Your task to perform on an android device: Empty the shopping cart on ebay.com. Search for "usb-c to usb-a" on ebay.com, select the first entry, add it to the cart, then select checkout. Image 0: 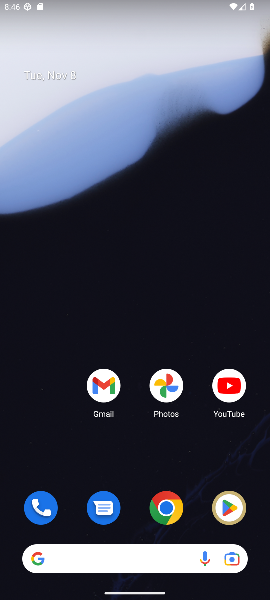
Step 0: press home button
Your task to perform on an android device: Empty the shopping cart on ebay.com. Search for "usb-c to usb-a" on ebay.com, select the first entry, add it to the cart, then select checkout. Image 1: 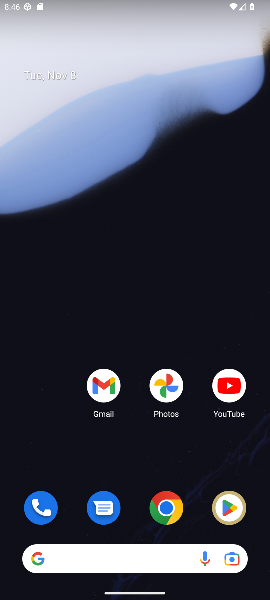
Step 1: click (170, 514)
Your task to perform on an android device: Empty the shopping cart on ebay.com. Search for "usb-c to usb-a" on ebay.com, select the first entry, add it to the cart, then select checkout. Image 2: 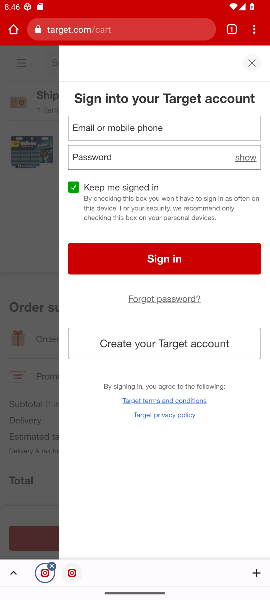
Step 2: click (253, 63)
Your task to perform on an android device: Empty the shopping cart on ebay.com. Search for "usb-c to usb-a" on ebay.com, select the first entry, add it to the cart, then select checkout. Image 3: 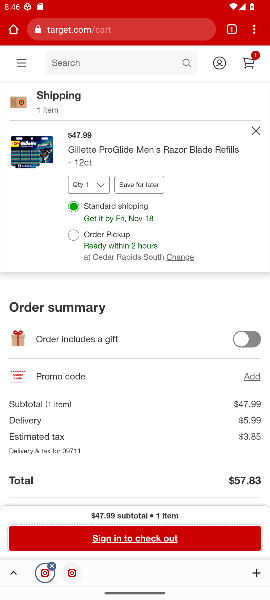
Step 3: click (72, 64)
Your task to perform on an android device: Empty the shopping cart on ebay.com. Search for "usb-c to usb-a" on ebay.com, select the first entry, add it to the cart, then select checkout. Image 4: 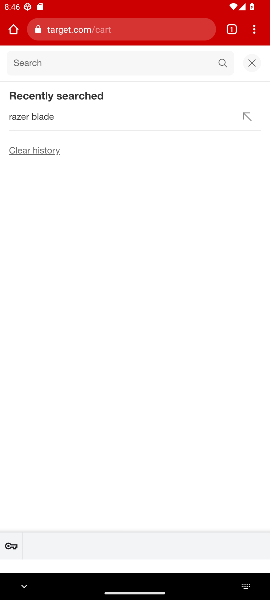
Step 4: click (47, 28)
Your task to perform on an android device: Empty the shopping cart on ebay.com. Search for "usb-c to usb-a" on ebay.com, select the first entry, add it to the cart, then select checkout. Image 5: 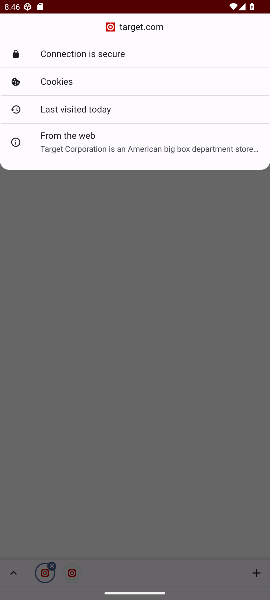
Step 5: press back button
Your task to perform on an android device: Empty the shopping cart on ebay.com. Search for "usb-c to usb-a" on ebay.com, select the first entry, add it to the cart, then select checkout. Image 6: 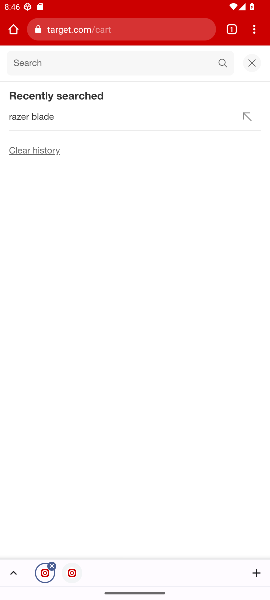
Step 6: click (65, 30)
Your task to perform on an android device: Empty the shopping cart on ebay.com. Search for "usb-c to usb-a" on ebay.com, select the first entry, add it to the cart, then select checkout. Image 7: 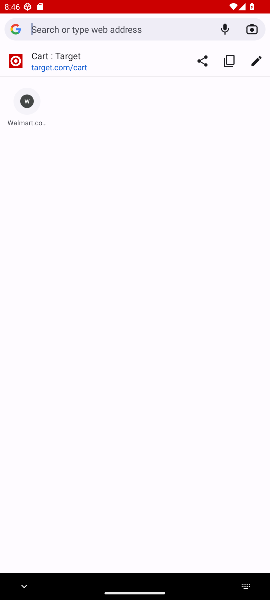
Step 7: type "ebay"
Your task to perform on an android device: Empty the shopping cart on ebay.com. Search for "usb-c to usb-a" on ebay.com, select the first entry, add it to the cart, then select checkout. Image 8: 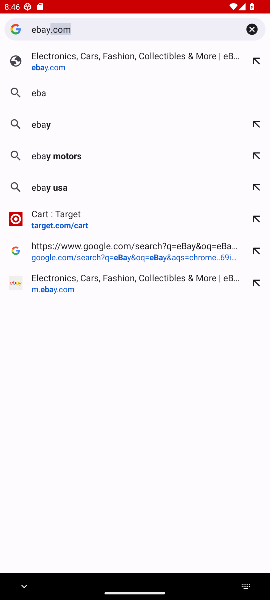
Step 8: type ""
Your task to perform on an android device: Empty the shopping cart on ebay.com. Search for "usb-c to usb-a" on ebay.com, select the first entry, add it to the cart, then select checkout. Image 9: 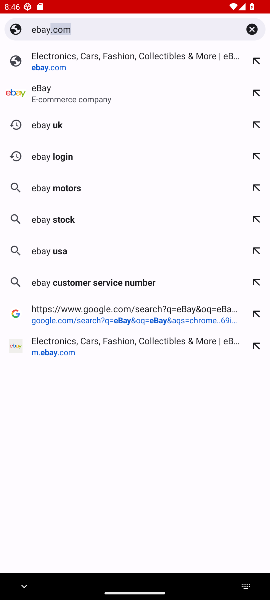
Step 9: click (44, 92)
Your task to perform on an android device: Empty the shopping cart on ebay.com. Search for "usb-c to usb-a" on ebay.com, select the first entry, add it to the cart, then select checkout. Image 10: 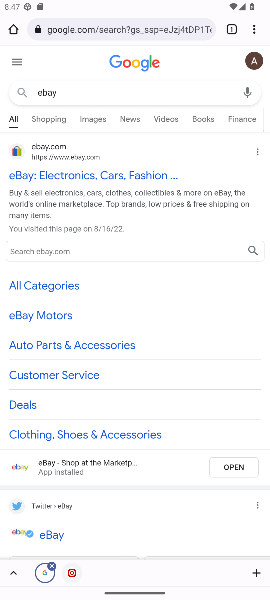
Step 10: click (64, 173)
Your task to perform on an android device: Empty the shopping cart on ebay.com. Search for "usb-c to usb-a" on ebay.com, select the first entry, add it to the cart, then select checkout. Image 11: 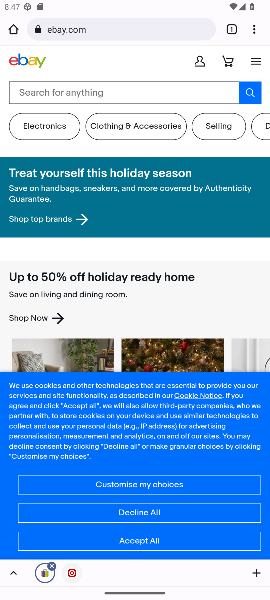
Step 11: click (89, 93)
Your task to perform on an android device: Empty the shopping cart on ebay.com. Search for "usb-c to usb-a" on ebay.com, select the first entry, add it to the cart, then select checkout. Image 12: 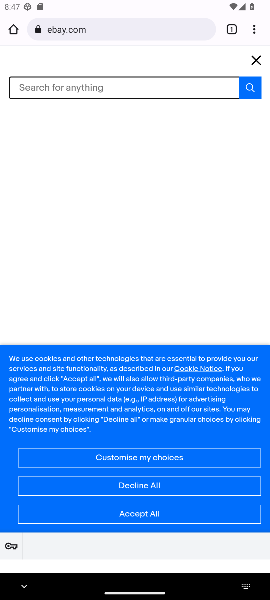
Step 12: type "usb c to usb a"
Your task to perform on an android device: Empty the shopping cart on ebay.com. Search for "usb-c to usb-a" on ebay.com, select the first entry, add it to the cart, then select checkout. Image 13: 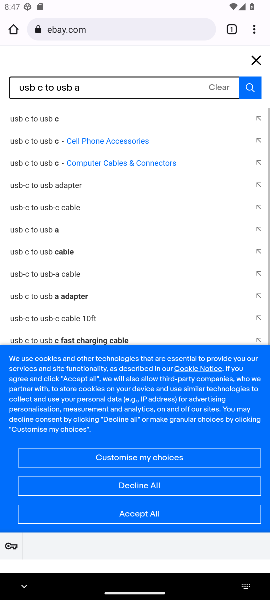
Step 13: click (33, 184)
Your task to perform on an android device: Empty the shopping cart on ebay.com. Search for "usb-c to usb-a" on ebay.com, select the first entry, add it to the cart, then select checkout. Image 14: 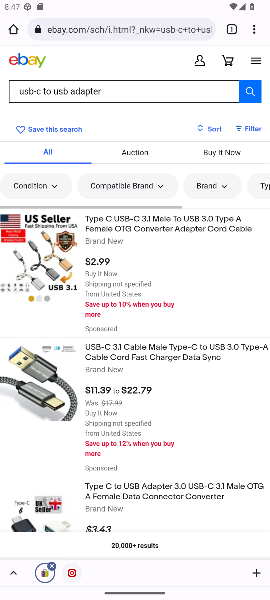
Step 14: drag from (126, 398) to (131, 290)
Your task to perform on an android device: Empty the shopping cart on ebay.com. Search for "usb-c to usb-a" on ebay.com, select the first entry, add it to the cart, then select checkout. Image 15: 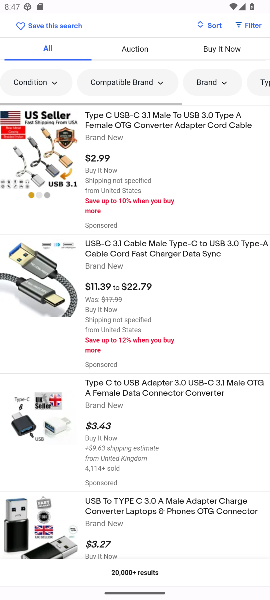
Step 15: click (140, 392)
Your task to perform on an android device: Empty the shopping cart on ebay.com. Search for "usb-c to usb-a" on ebay.com, select the first entry, add it to the cart, then select checkout. Image 16: 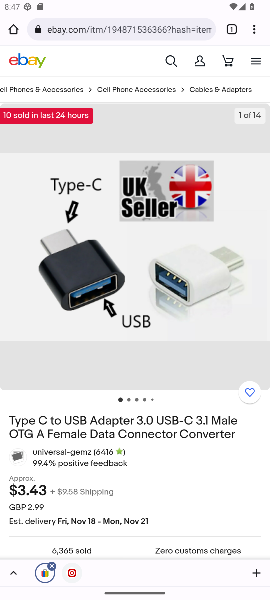
Step 16: drag from (145, 394) to (148, 164)
Your task to perform on an android device: Empty the shopping cart on ebay.com. Search for "usb-c to usb-a" on ebay.com, select the first entry, add it to the cart, then select checkout. Image 17: 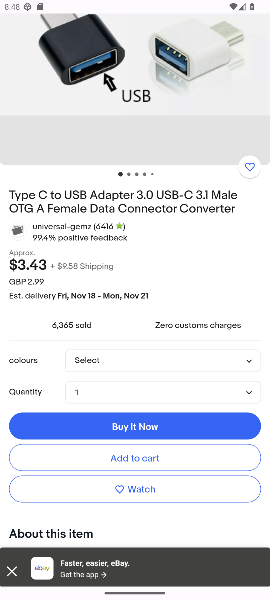
Step 17: click (142, 460)
Your task to perform on an android device: Empty the shopping cart on ebay.com. Search for "usb-c to usb-a" on ebay.com, select the first entry, add it to the cart, then select checkout. Image 18: 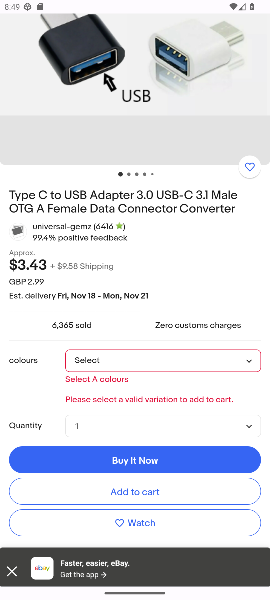
Step 18: click (136, 496)
Your task to perform on an android device: Empty the shopping cart on ebay.com. Search for "usb-c to usb-a" on ebay.com, select the first entry, add it to the cart, then select checkout. Image 19: 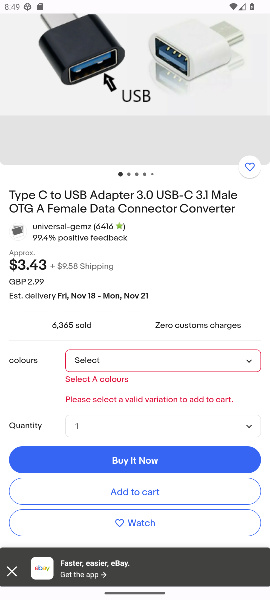
Step 19: click (154, 495)
Your task to perform on an android device: Empty the shopping cart on ebay.com. Search for "usb-c to usb-a" on ebay.com, select the first entry, add it to the cart, then select checkout. Image 20: 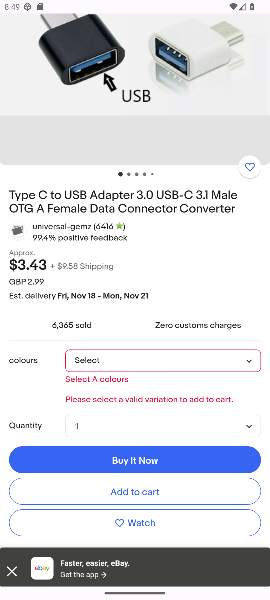
Step 20: task complete